Your task to perform on an android device: Go to Android settings Image 0: 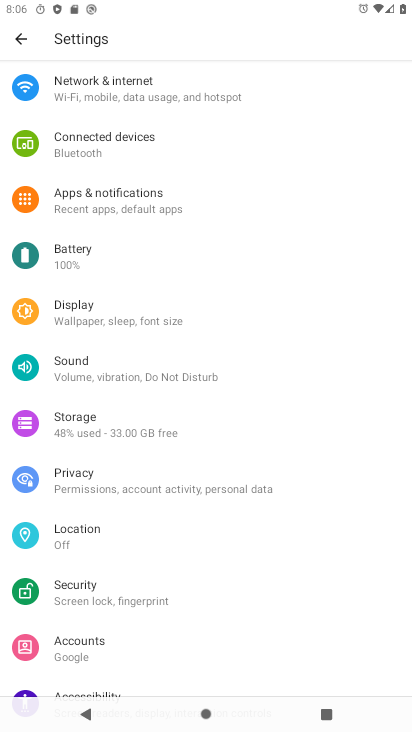
Step 0: press back button
Your task to perform on an android device: Go to Android settings Image 1: 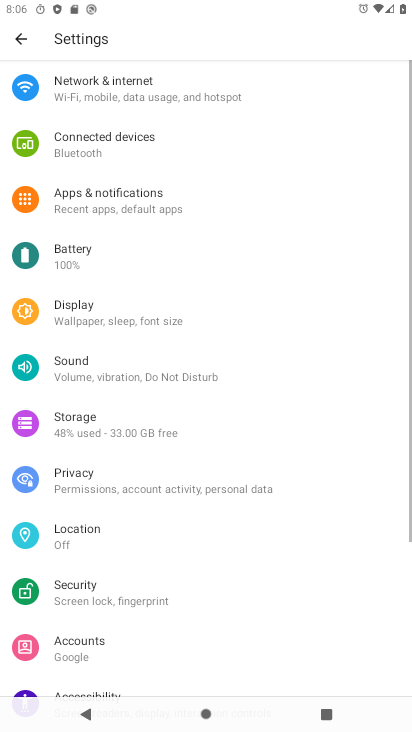
Step 1: press back button
Your task to perform on an android device: Go to Android settings Image 2: 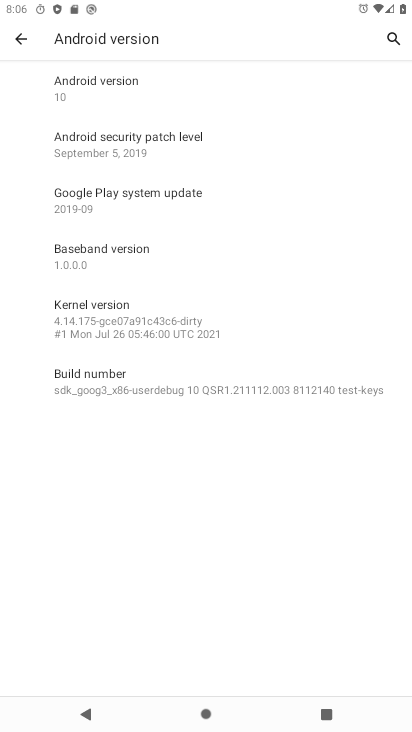
Step 2: press back button
Your task to perform on an android device: Go to Android settings Image 3: 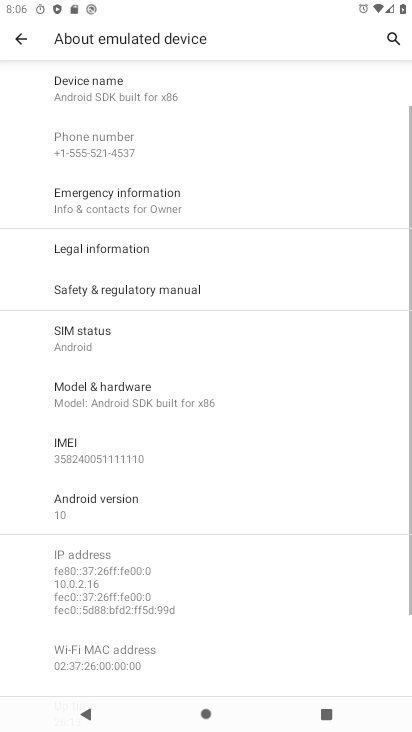
Step 3: press back button
Your task to perform on an android device: Go to Android settings Image 4: 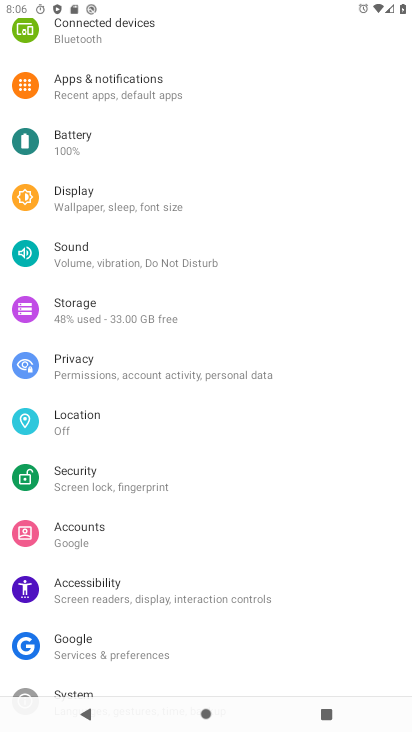
Step 4: press back button
Your task to perform on an android device: Go to Android settings Image 5: 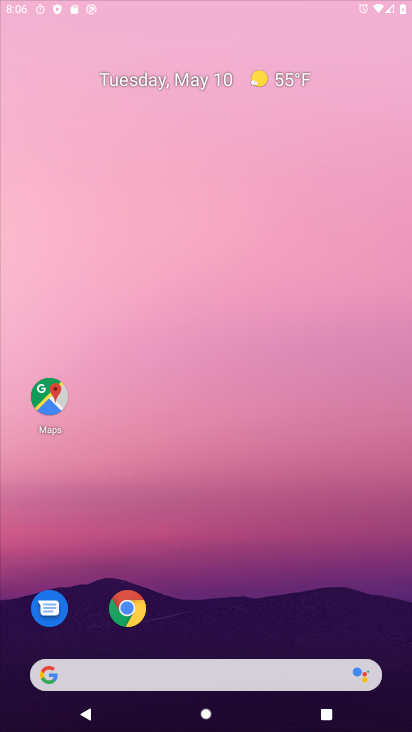
Step 5: press back button
Your task to perform on an android device: Go to Android settings Image 6: 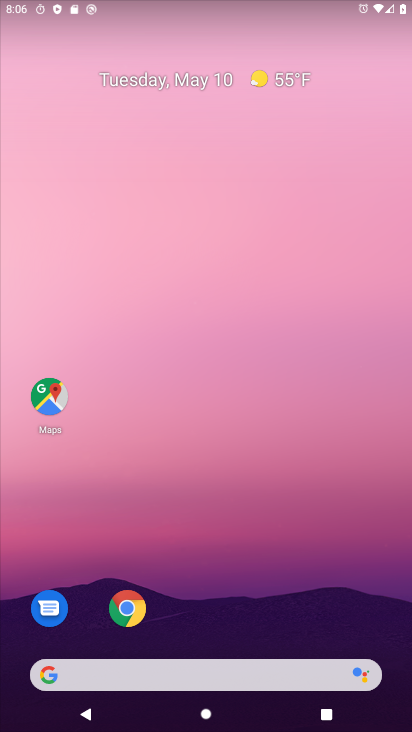
Step 6: drag from (219, 599) to (225, 82)
Your task to perform on an android device: Go to Android settings Image 7: 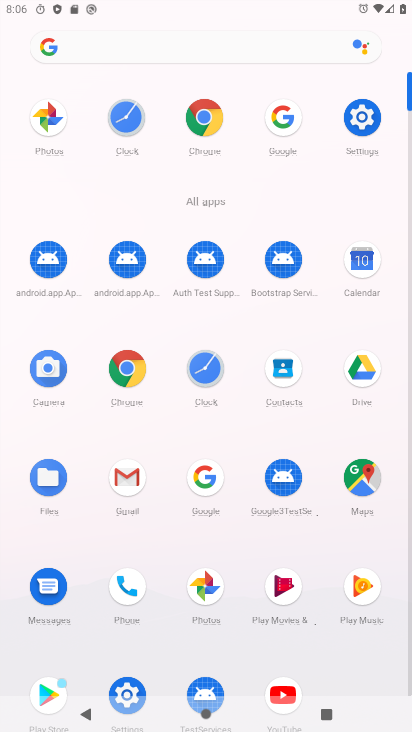
Step 7: click (363, 118)
Your task to perform on an android device: Go to Android settings Image 8: 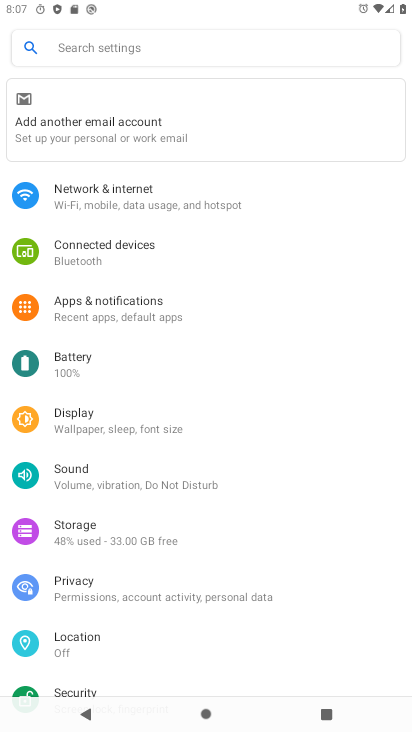
Step 8: task complete